Your task to perform on an android device: Go to notification settings Image 0: 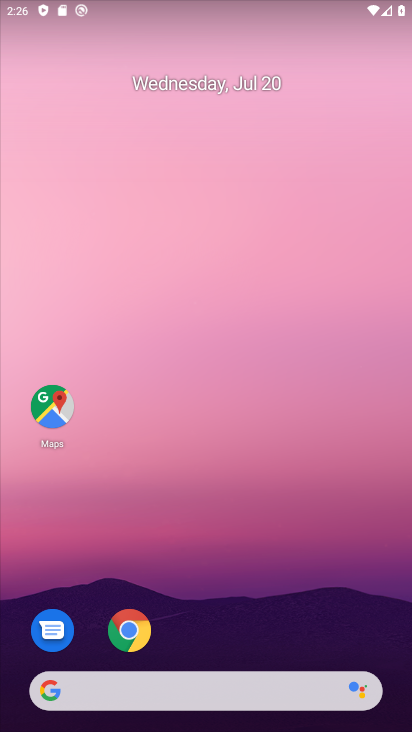
Step 0: drag from (269, 596) to (339, 10)
Your task to perform on an android device: Go to notification settings Image 1: 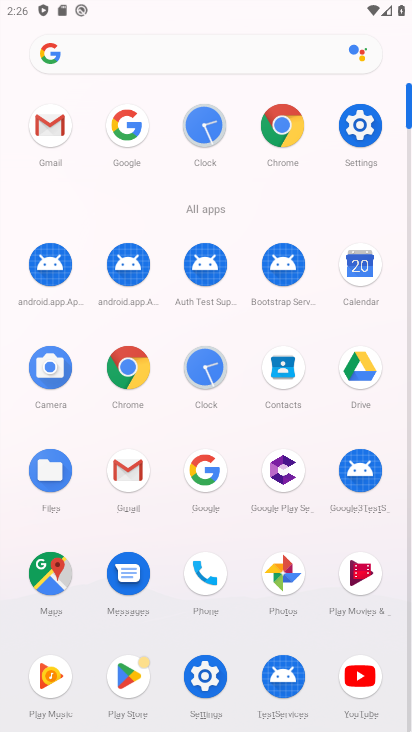
Step 1: click (364, 119)
Your task to perform on an android device: Go to notification settings Image 2: 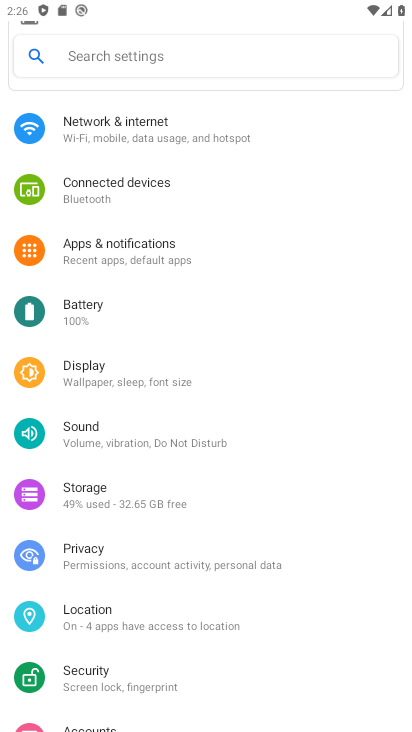
Step 2: click (148, 254)
Your task to perform on an android device: Go to notification settings Image 3: 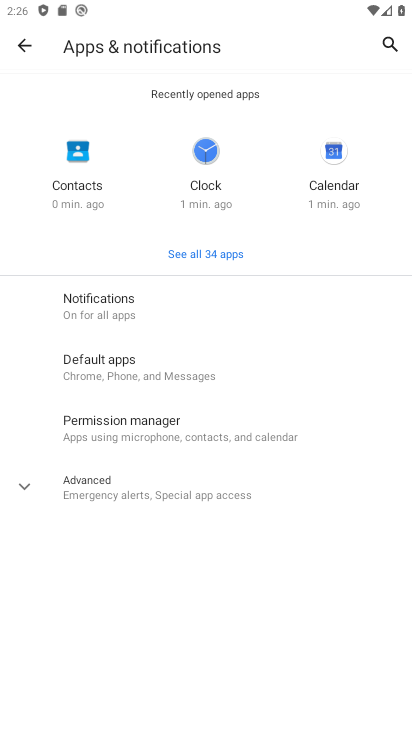
Step 3: click (148, 294)
Your task to perform on an android device: Go to notification settings Image 4: 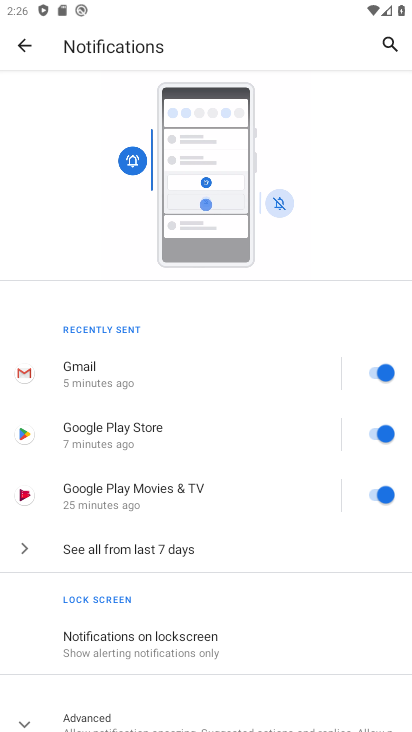
Step 4: task complete